Your task to perform on an android device: open chrome and create a bookmark for the current page Image 0: 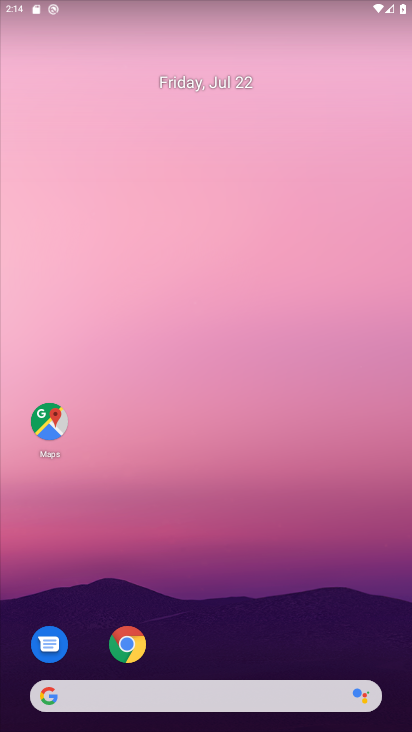
Step 0: click (132, 650)
Your task to perform on an android device: open chrome and create a bookmark for the current page Image 1: 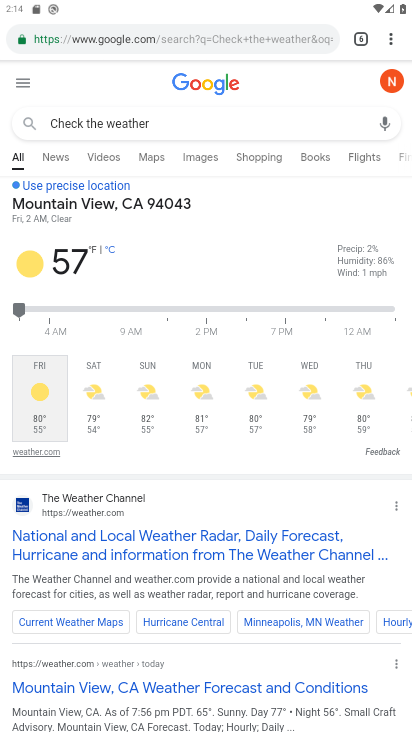
Step 1: click (132, 650)
Your task to perform on an android device: open chrome and create a bookmark for the current page Image 2: 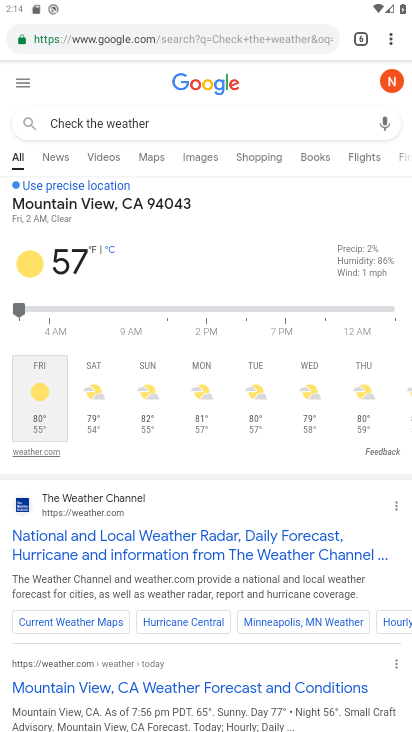
Step 2: click (389, 42)
Your task to perform on an android device: open chrome and create a bookmark for the current page Image 3: 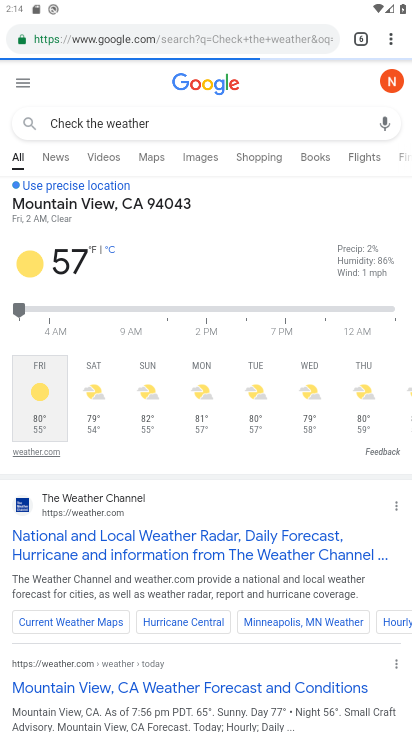
Step 3: click (376, 29)
Your task to perform on an android device: open chrome and create a bookmark for the current page Image 4: 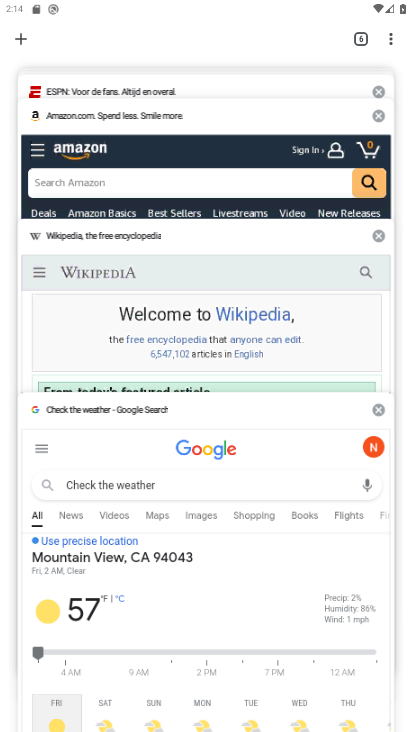
Step 4: click (386, 29)
Your task to perform on an android device: open chrome and create a bookmark for the current page Image 5: 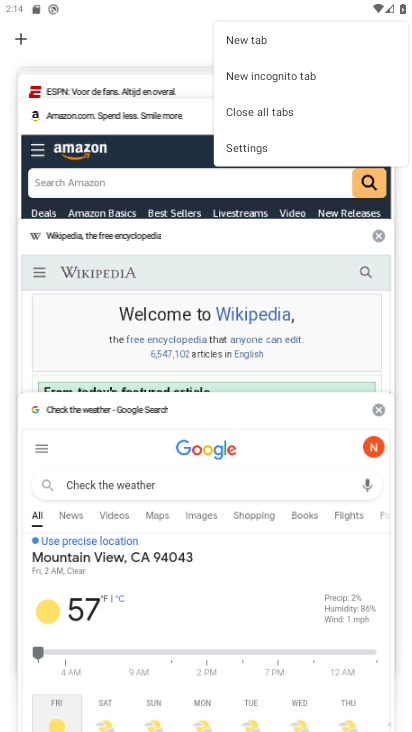
Step 5: click (263, 402)
Your task to perform on an android device: open chrome and create a bookmark for the current page Image 6: 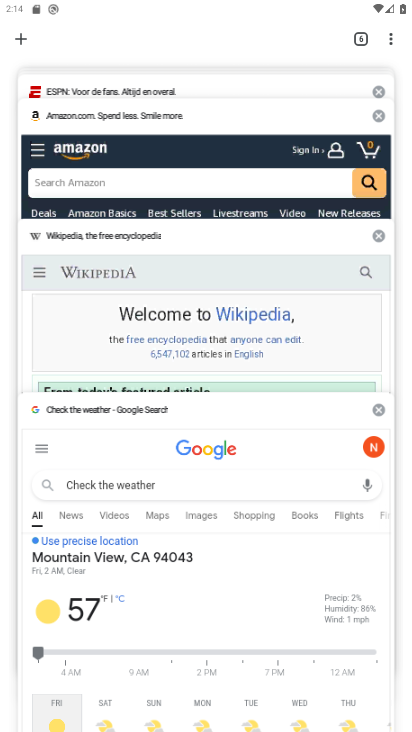
Step 6: click (234, 452)
Your task to perform on an android device: open chrome and create a bookmark for the current page Image 7: 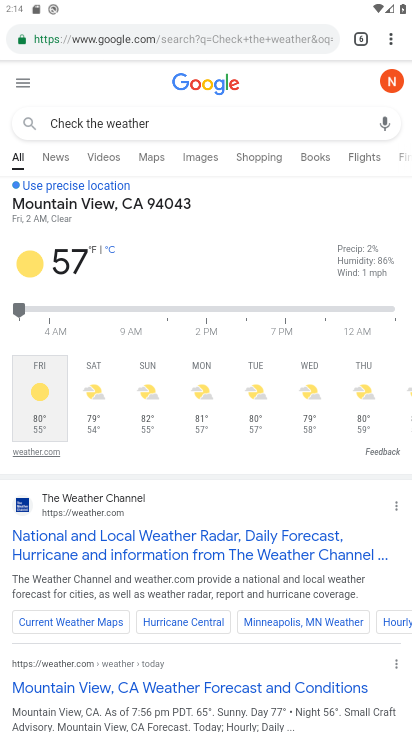
Step 7: click (394, 33)
Your task to perform on an android device: open chrome and create a bookmark for the current page Image 8: 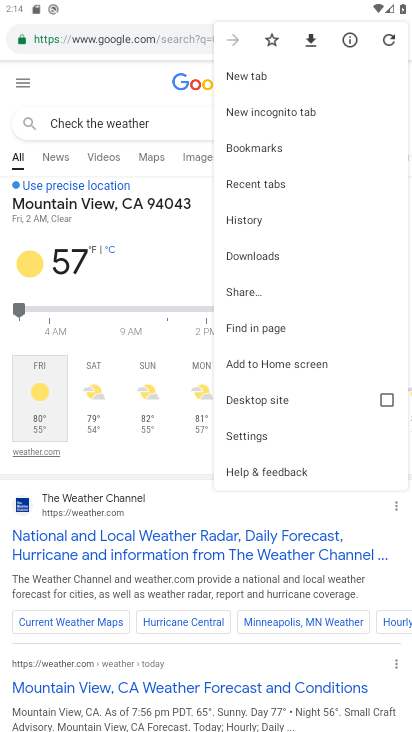
Step 8: click (274, 36)
Your task to perform on an android device: open chrome and create a bookmark for the current page Image 9: 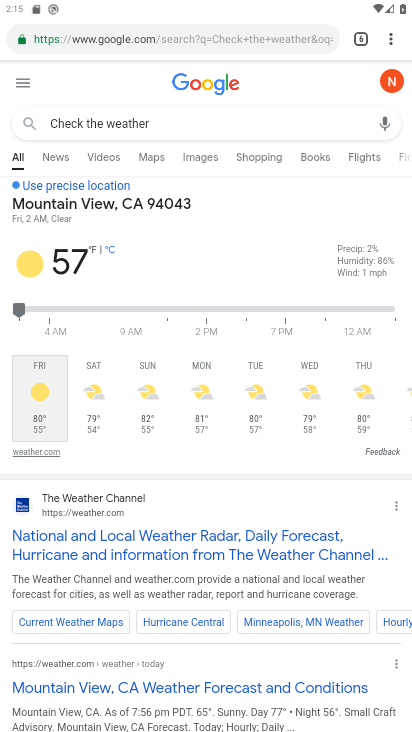
Step 9: task complete